Your task to perform on an android device: Open Google Maps Image 0: 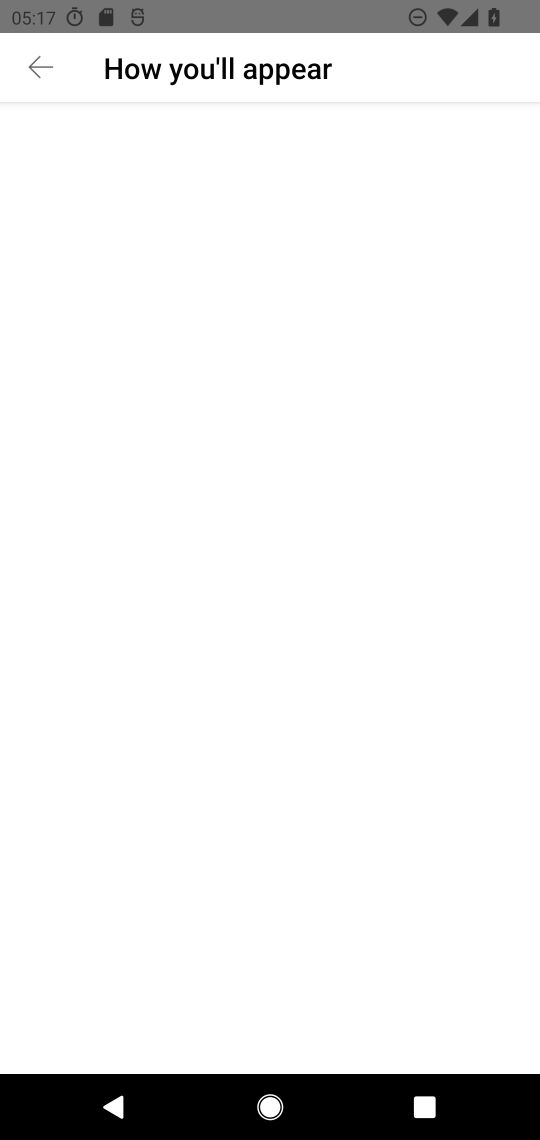
Step 0: press home button
Your task to perform on an android device: Open Google Maps Image 1: 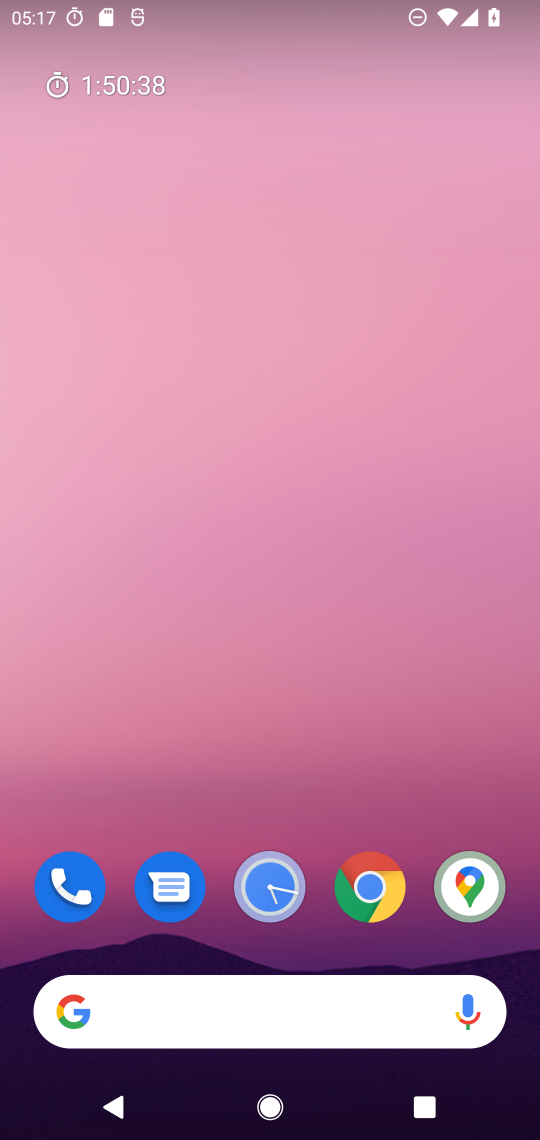
Step 1: drag from (407, 809) to (449, 262)
Your task to perform on an android device: Open Google Maps Image 2: 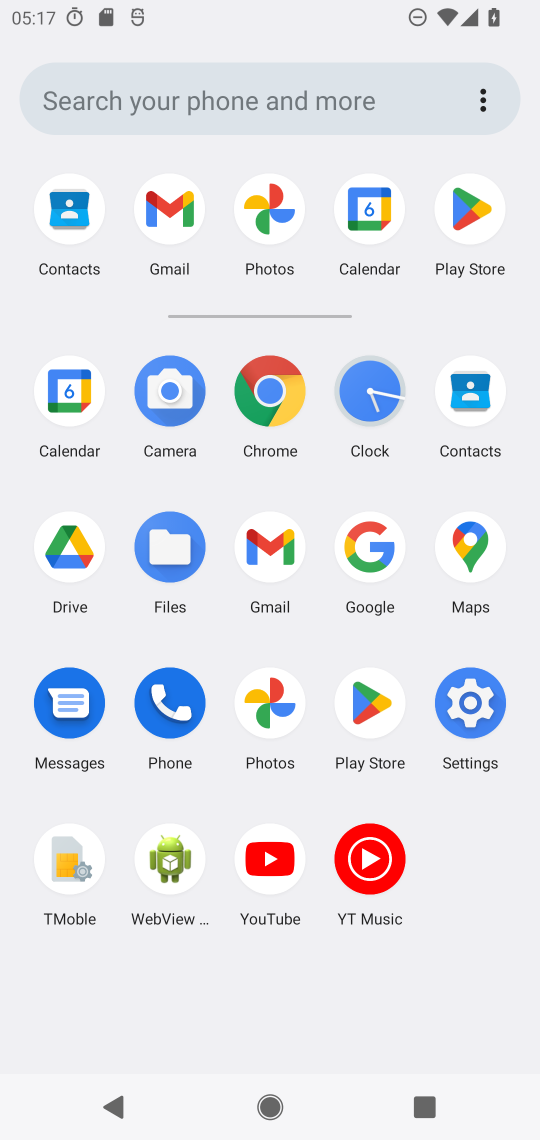
Step 2: click (460, 552)
Your task to perform on an android device: Open Google Maps Image 3: 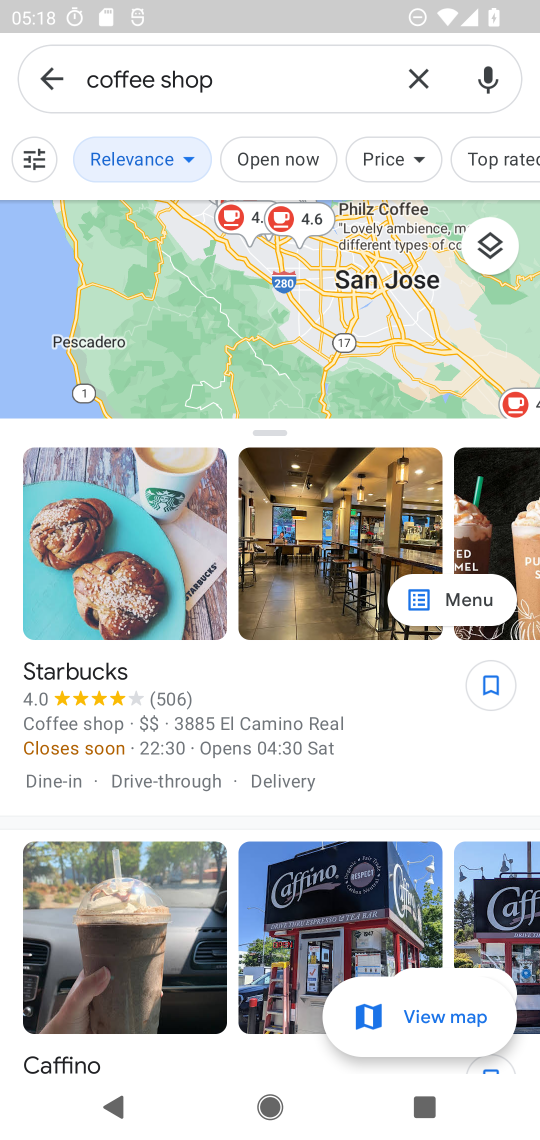
Step 3: task complete